Your task to perform on an android device: set the timer Image 0: 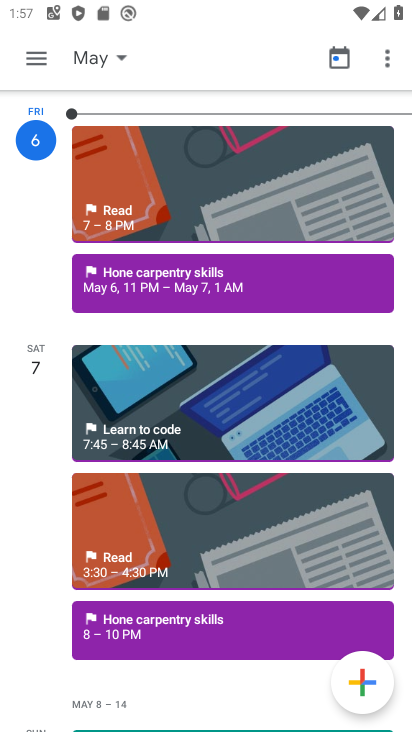
Step 0: press home button
Your task to perform on an android device: set the timer Image 1: 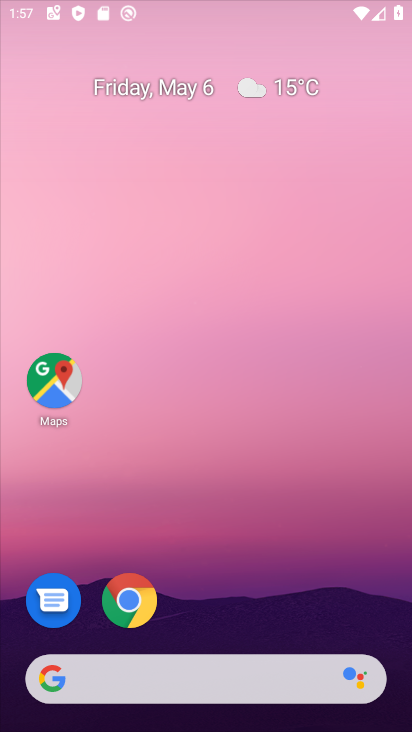
Step 1: drag from (290, 608) to (346, 62)
Your task to perform on an android device: set the timer Image 2: 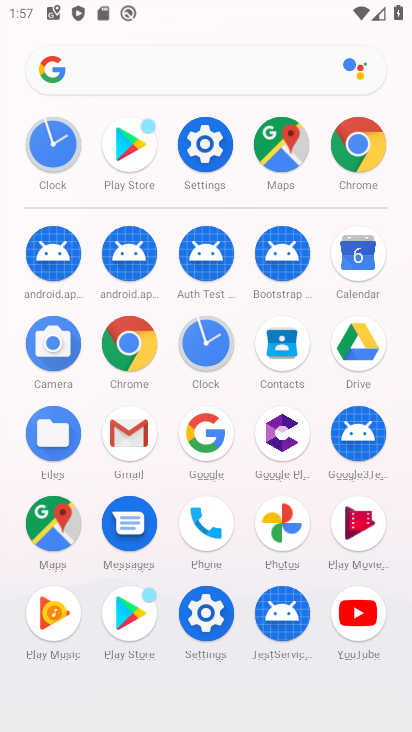
Step 2: click (204, 353)
Your task to perform on an android device: set the timer Image 3: 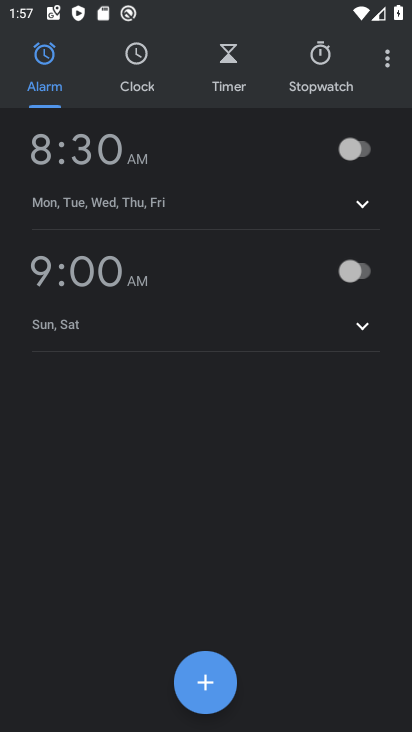
Step 3: click (387, 58)
Your task to perform on an android device: set the timer Image 4: 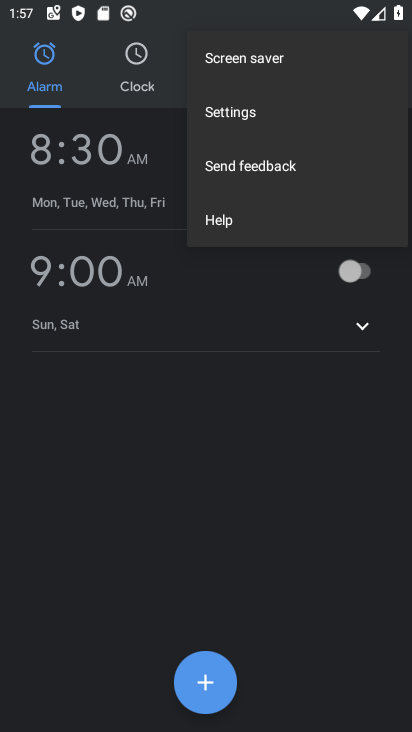
Step 4: click (326, 115)
Your task to perform on an android device: set the timer Image 5: 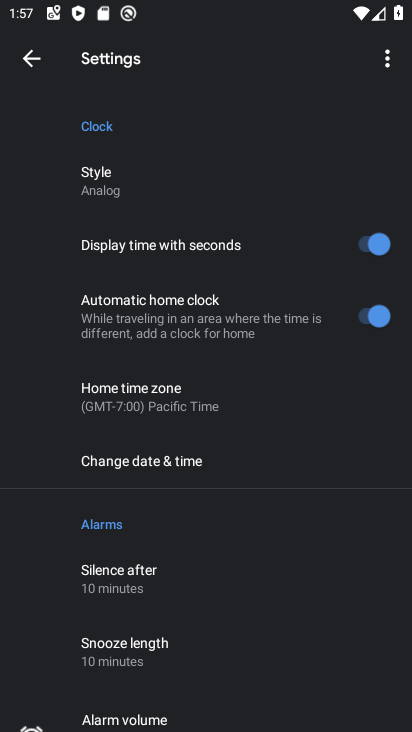
Step 5: click (207, 418)
Your task to perform on an android device: set the timer Image 6: 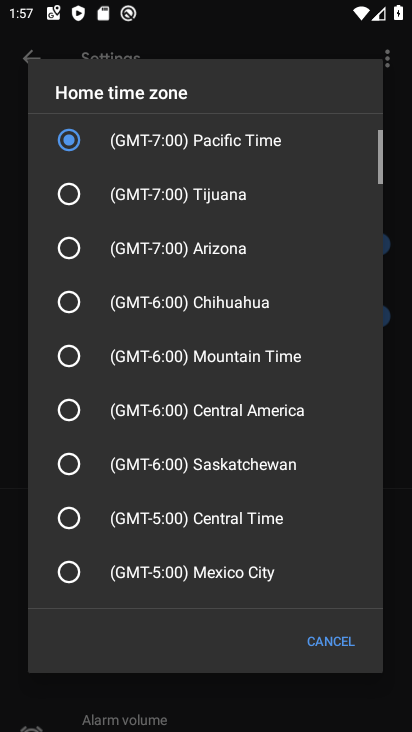
Step 6: click (187, 396)
Your task to perform on an android device: set the timer Image 7: 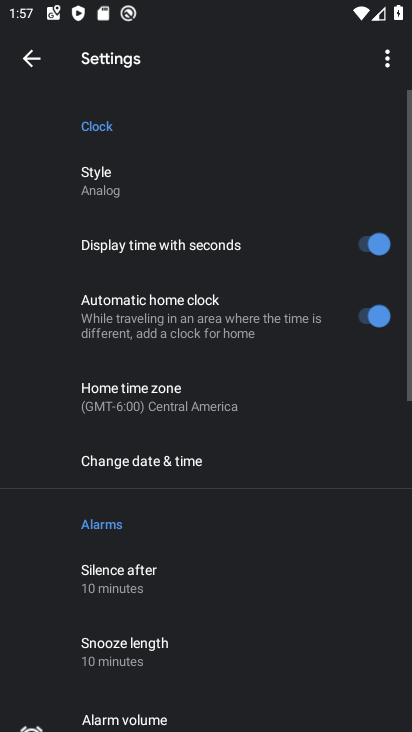
Step 7: task complete